Your task to perform on an android device: Open Chrome and go to settings Image 0: 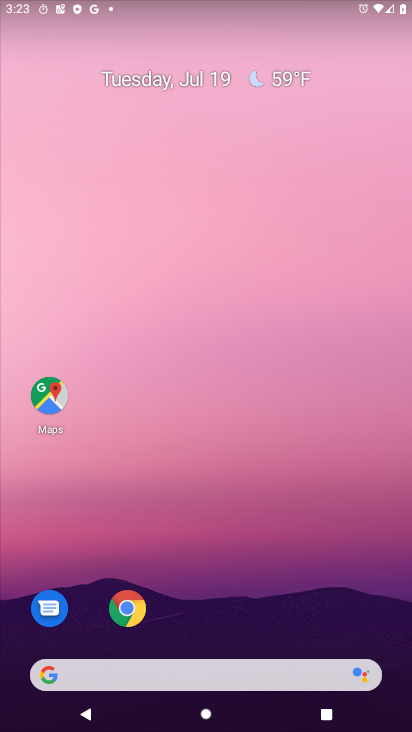
Step 0: drag from (366, 633) to (244, 4)
Your task to perform on an android device: Open Chrome and go to settings Image 1: 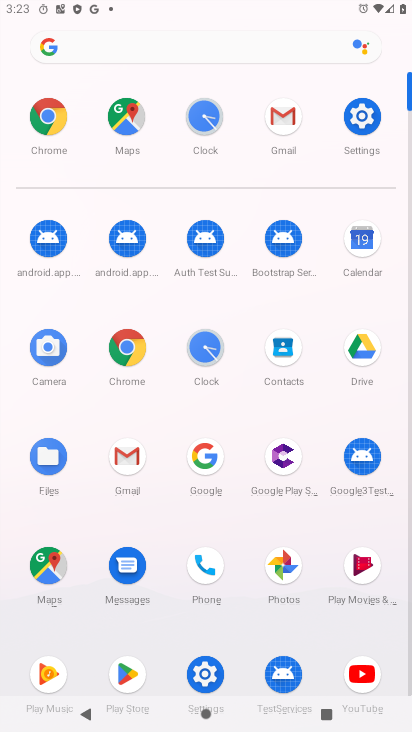
Step 1: click (46, 127)
Your task to perform on an android device: Open Chrome and go to settings Image 2: 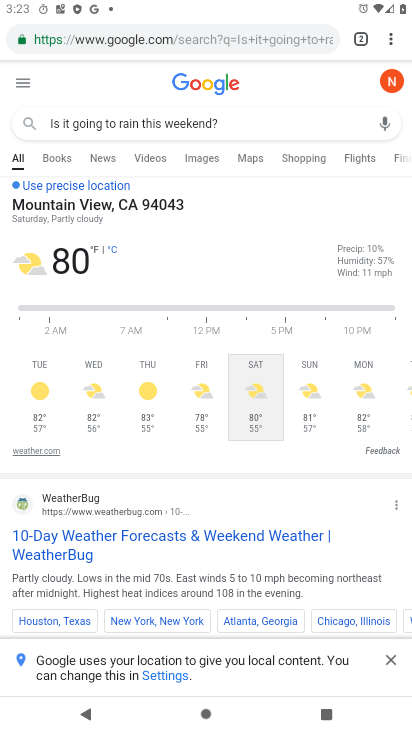
Step 2: click (395, 33)
Your task to perform on an android device: Open Chrome and go to settings Image 3: 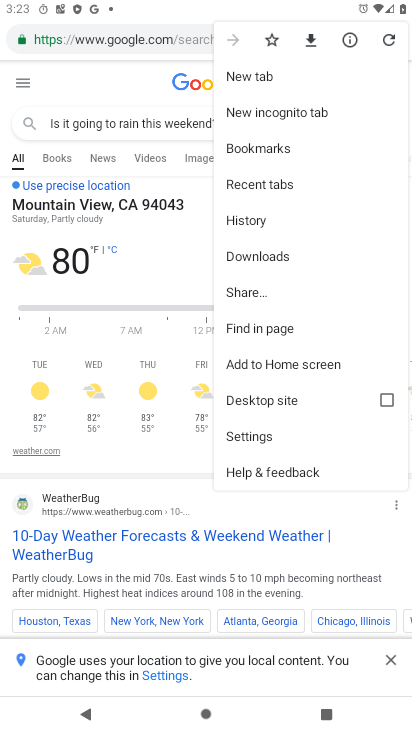
Step 3: click (257, 434)
Your task to perform on an android device: Open Chrome and go to settings Image 4: 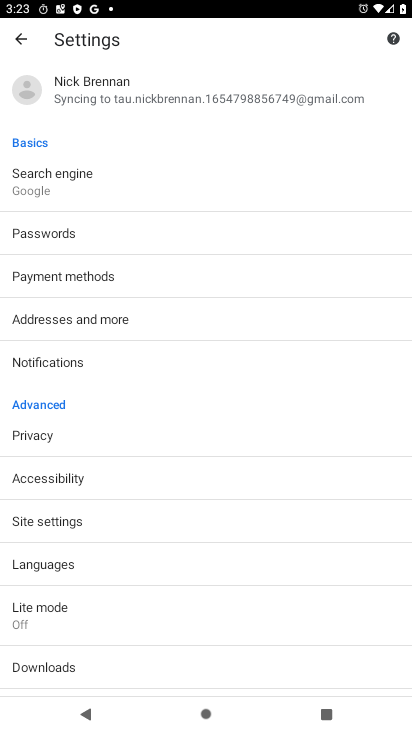
Step 4: task complete